Your task to perform on an android device: Open Google Chrome and click the shortcut for Amazon.com Image 0: 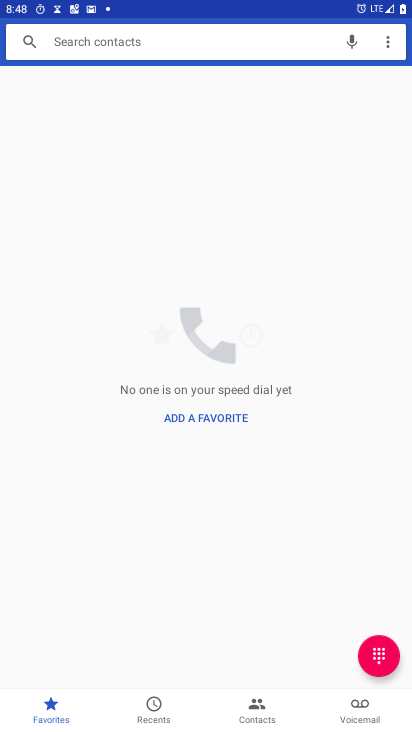
Step 0: press home button
Your task to perform on an android device: Open Google Chrome and click the shortcut for Amazon.com Image 1: 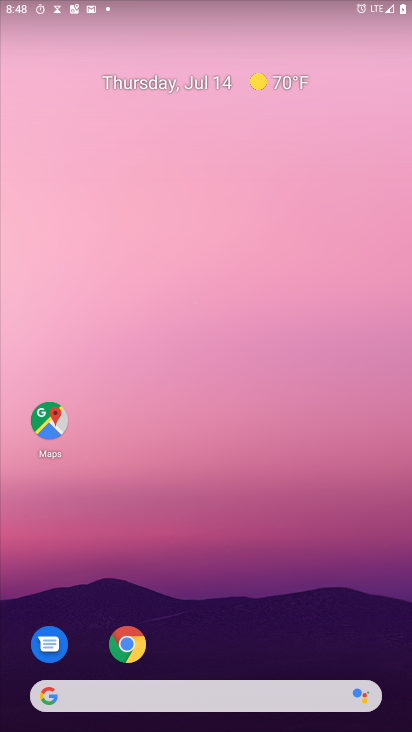
Step 1: click (121, 647)
Your task to perform on an android device: Open Google Chrome and click the shortcut for Amazon.com Image 2: 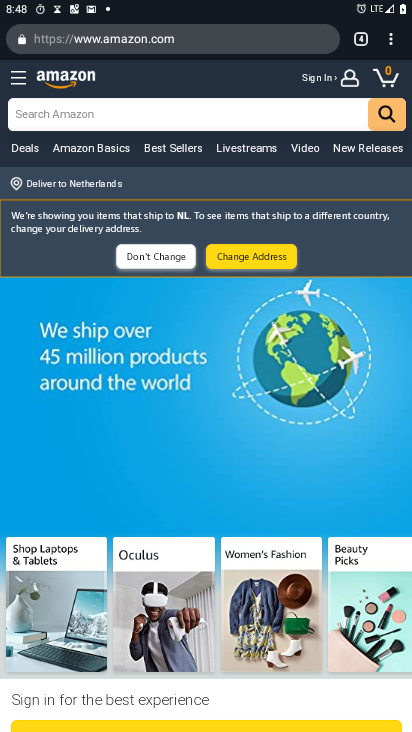
Step 2: task complete